Your task to perform on an android device: toggle notifications settings in the gmail app Image 0: 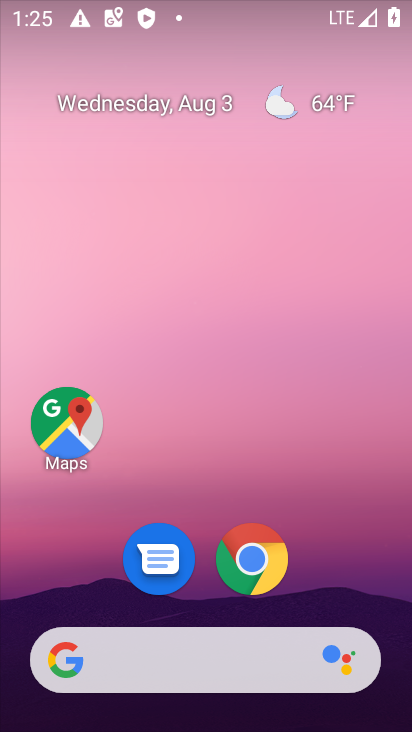
Step 0: drag from (207, 663) to (205, 122)
Your task to perform on an android device: toggle notifications settings in the gmail app Image 1: 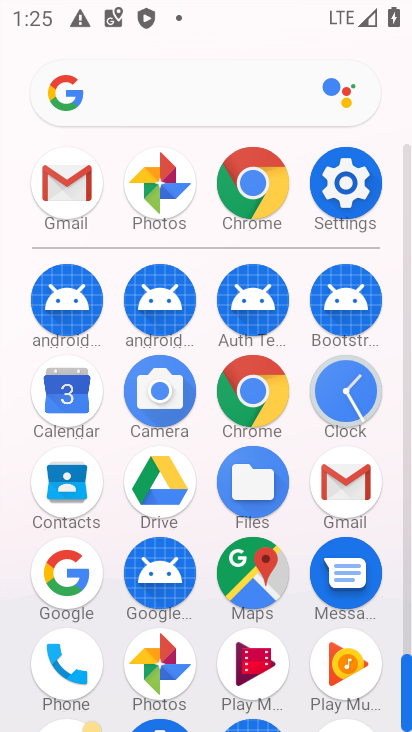
Step 1: click (61, 188)
Your task to perform on an android device: toggle notifications settings in the gmail app Image 2: 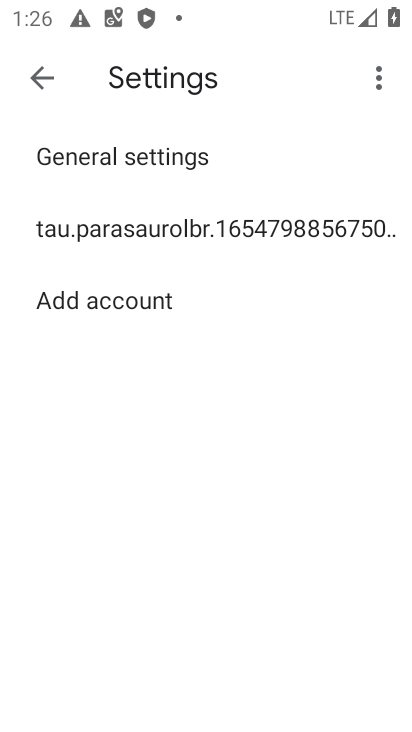
Step 2: click (138, 228)
Your task to perform on an android device: toggle notifications settings in the gmail app Image 3: 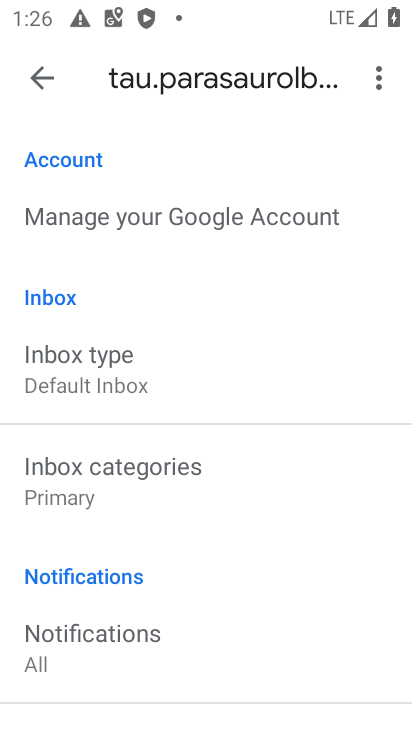
Step 3: click (107, 625)
Your task to perform on an android device: toggle notifications settings in the gmail app Image 4: 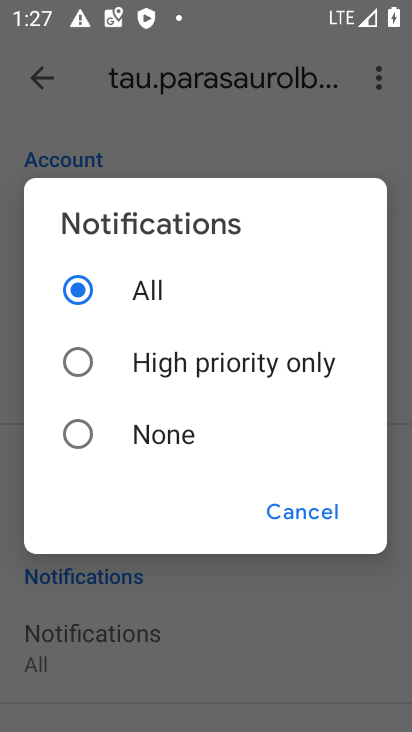
Step 4: click (78, 434)
Your task to perform on an android device: toggle notifications settings in the gmail app Image 5: 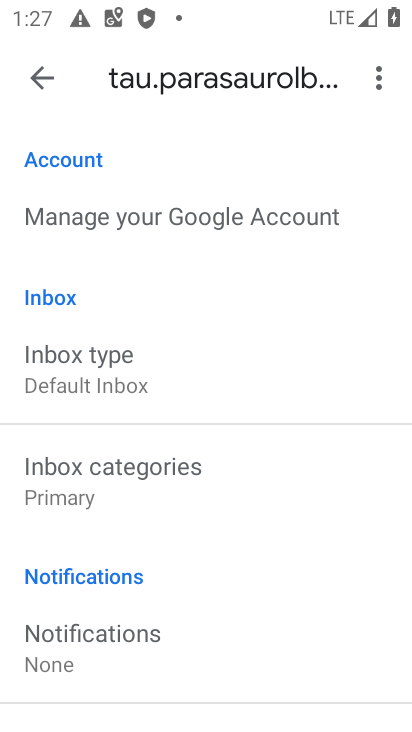
Step 5: task complete